Your task to perform on an android device: turn on priority inbox in the gmail app Image 0: 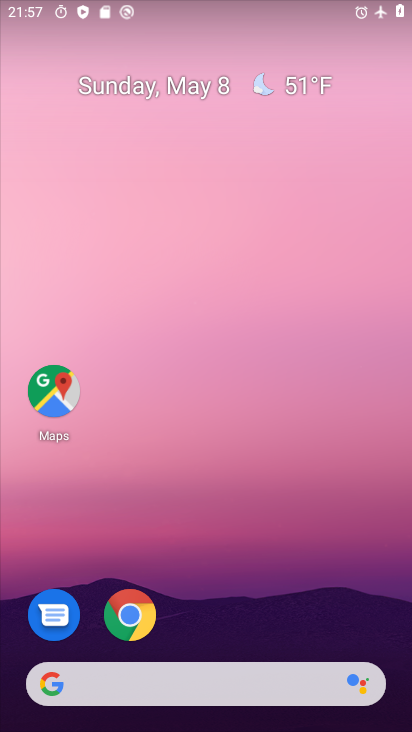
Step 0: drag from (280, 578) to (270, 145)
Your task to perform on an android device: turn on priority inbox in the gmail app Image 1: 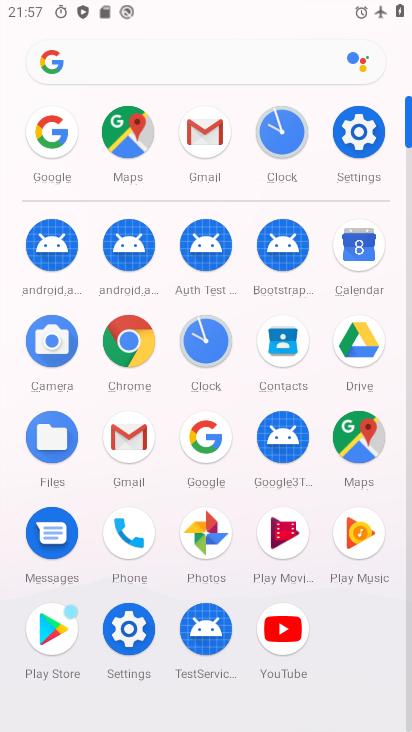
Step 1: click (187, 151)
Your task to perform on an android device: turn on priority inbox in the gmail app Image 2: 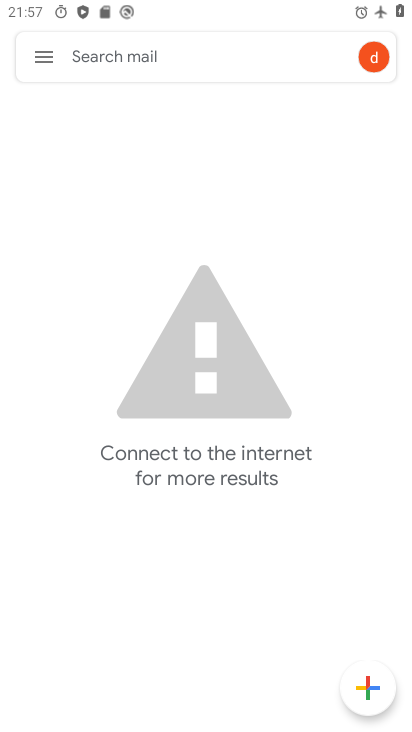
Step 2: click (49, 51)
Your task to perform on an android device: turn on priority inbox in the gmail app Image 3: 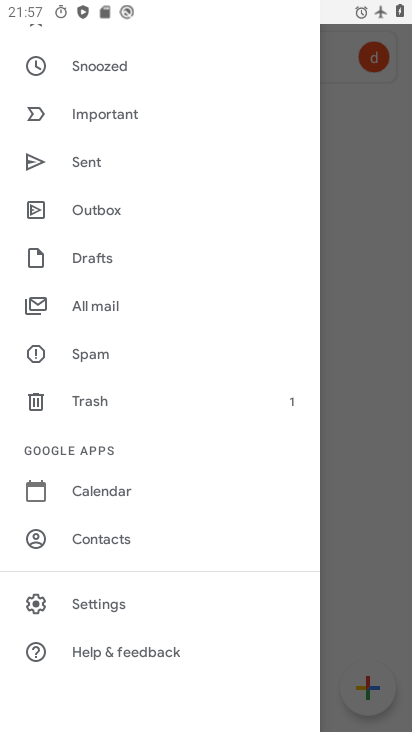
Step 3: click (128, 605)
Your task to perform on an android device: turn on priority inbox in the gmail app Image 4: 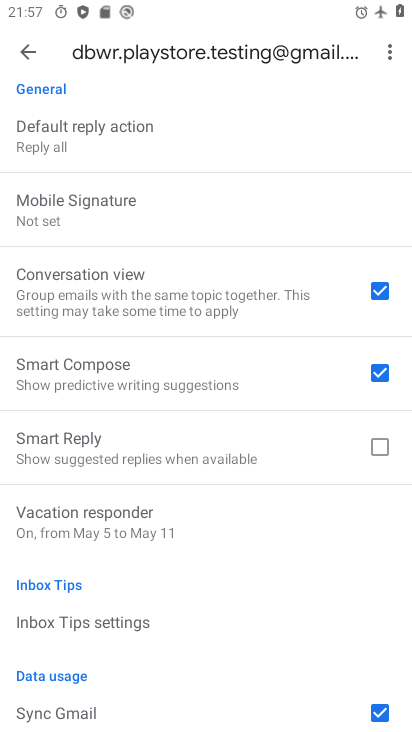
Step 4: drag from (117, 152) to (168, 617)
Your task to perform on an android device: turn on priority inbox in the gmail app Image 5: 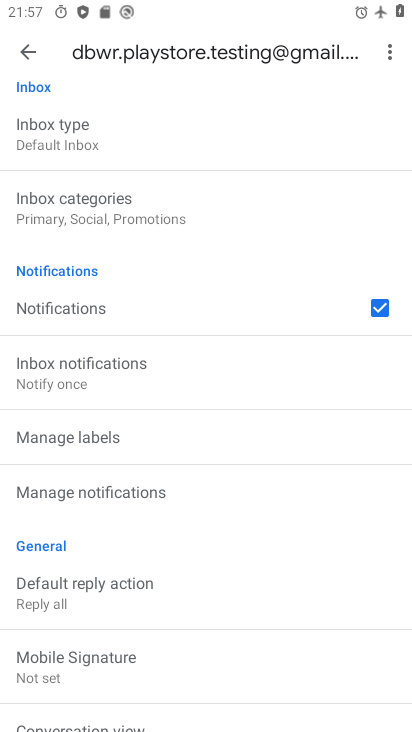
Step 5: click (82, 140)
Your task to perform on an android device: turn on priority inbox in the gmail app Image 6: 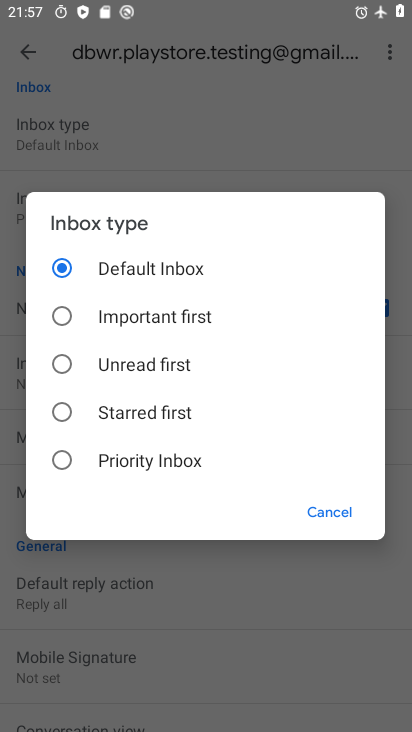
Step 6: click (130, 458)
Your task to perform on an android device: turn on priority inbox in the gmail app Image 7: 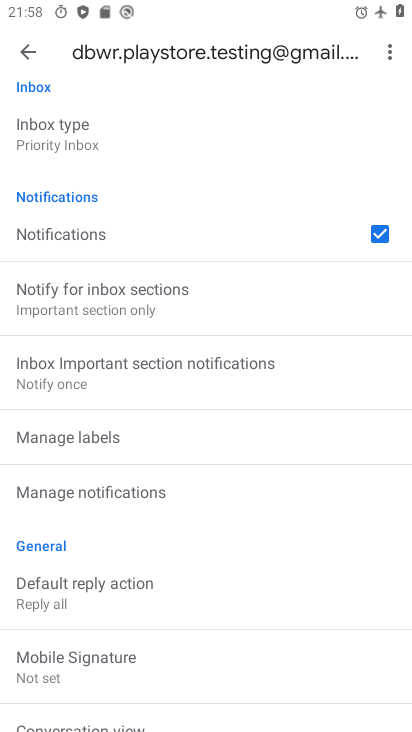
Step 7: task complete